Your task to perform on an android device: turn on javascript in the chrome app Image 0: 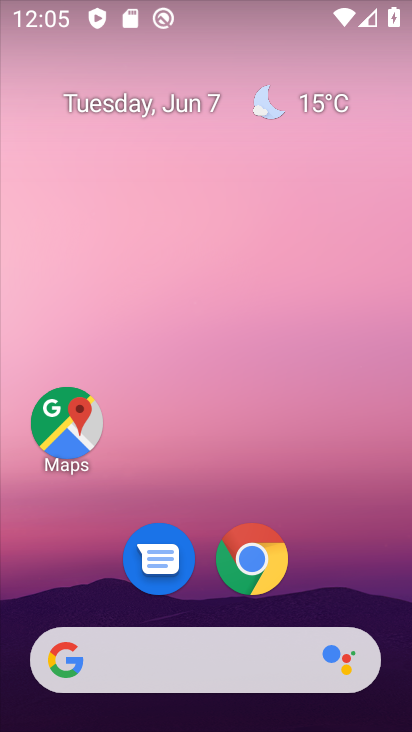
Step 0: click (258, 558)
Your task to perform on an android device: turn on javascript in the chrome app Image 1: 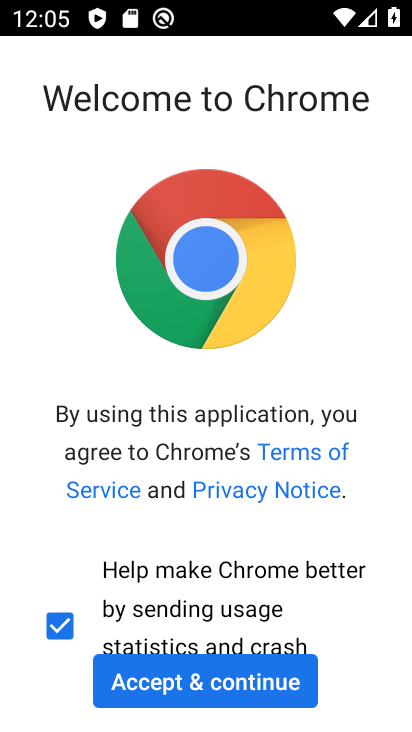
Step 1: click (205, 683)
Your task to perform on an android device: turn on javascript in the chrome app Image 2: 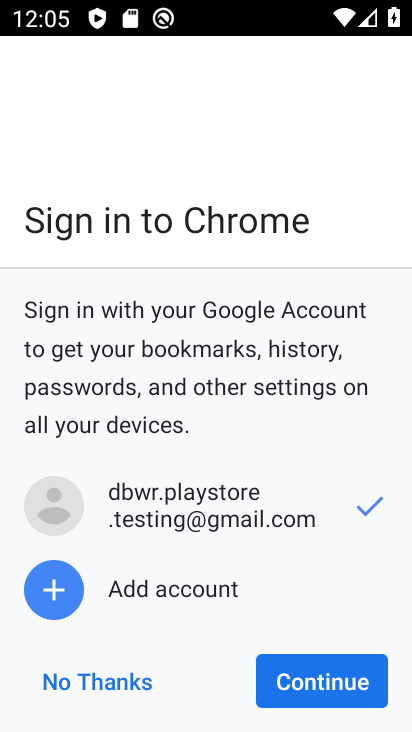
Step 2: click (348, 678)
Your task to perform on an android device: turn on javascript in the chrome app Image 3: 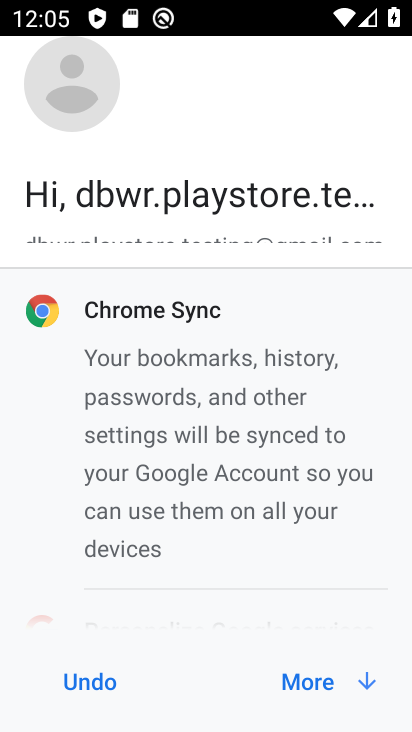
Step 3: click (348, 678)
Your task to perform on an android device: turn on javascript in the chrome app Image 4: 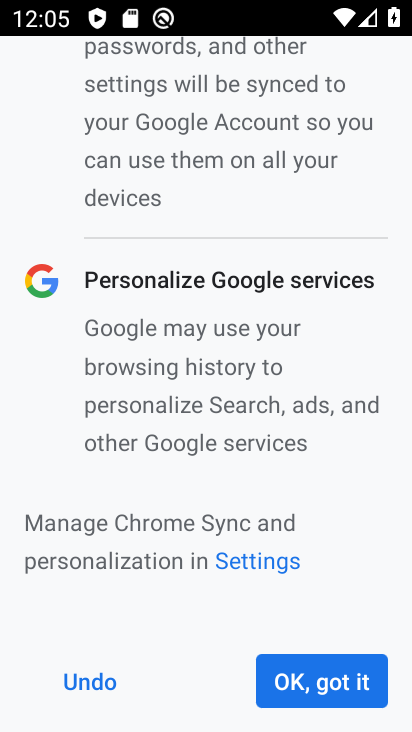
Step 4: click (348, 678)
Your task to perform on an android device: turn on javascript in the chrome app Image 5: 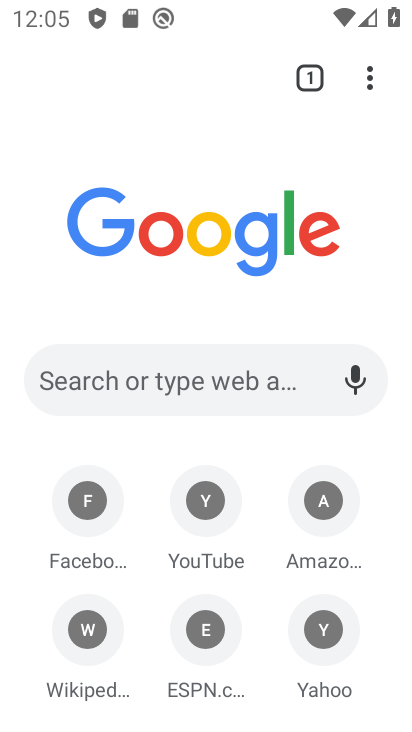
Step 5: click (369, 85)
Your task to perform on an android device: turn on javascript in the chrome app Image 6: 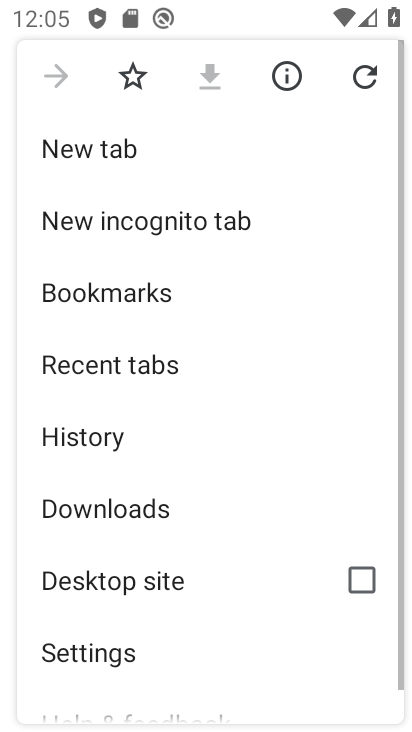
Step 6: click (101, 632)
Your task to perform on an android device: turn on javascript in the chrome app Image 7: 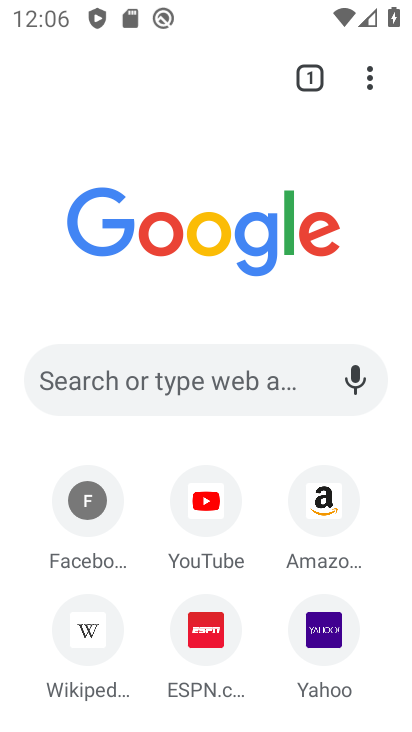
Step 7: drag from (271, 627) to (242, 227)
Your task to perform on an android device: turn on javascript in the chrome app Image 8: 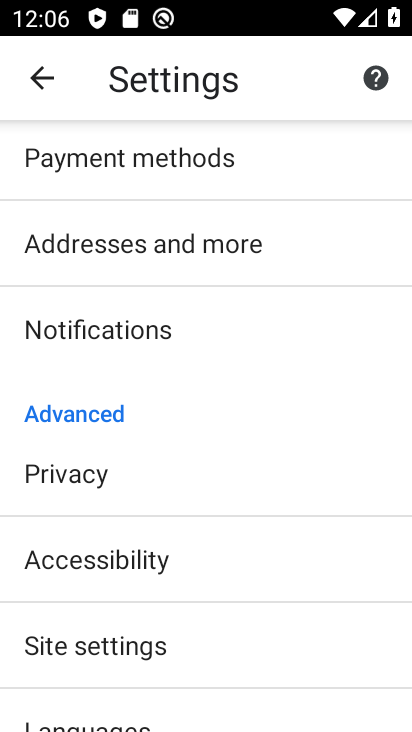
Step 8: click (104, 668)
Your task to perform on an android device: turn on javascript in the chrome app Image 9: 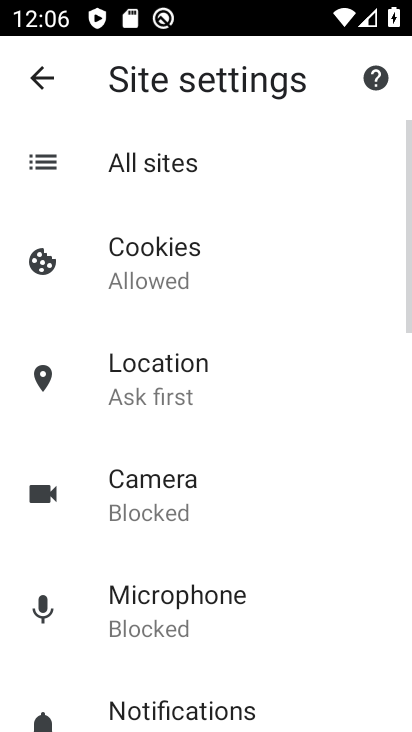
Step 9: drag from (304, 689) to (233, 128)
Your task to perform on an android device: turn on javascript in the chrome app Image 10: 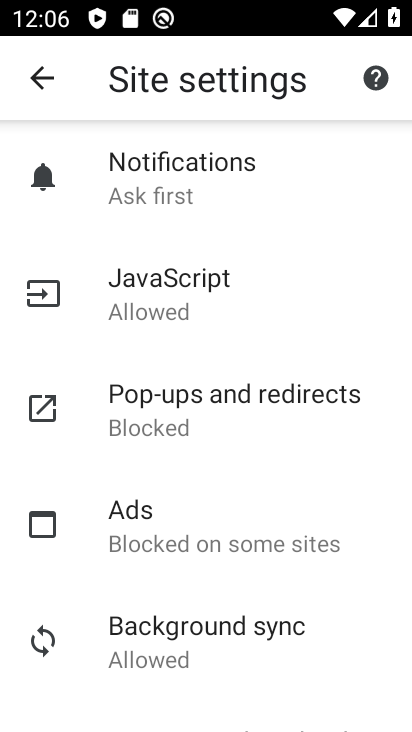
Step 10: click (139, 302)
Your task to perform on an android device: turn on javascript in the chrome app Image 11: 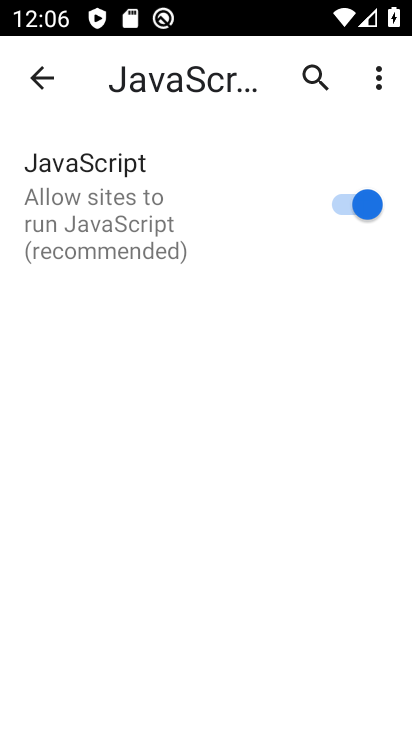
Step 11: task complete